Your task to perform on an android device: toggle priority inbox in the gmail app Image 0: 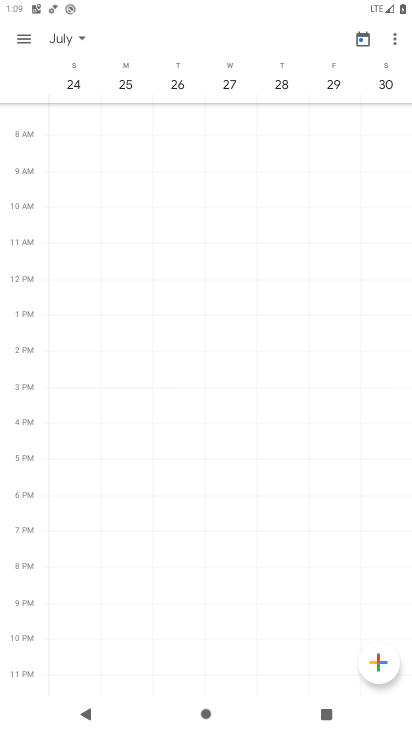
Step 0: press home button
Your task to perform on an android device: toggle priority inbox in the gmail app Image 1: 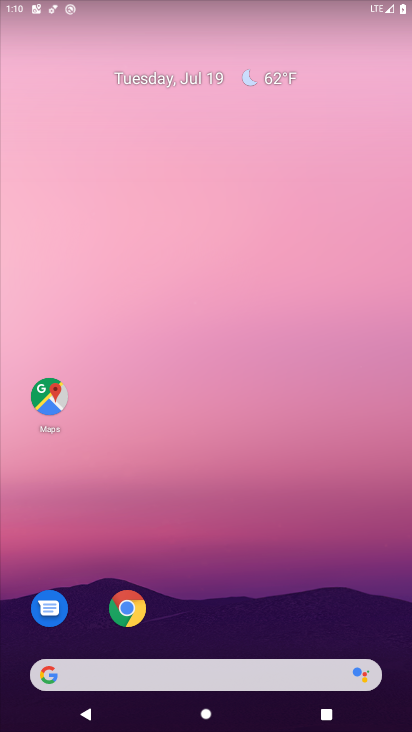
Step 1: drag from (218, 622) to (268, 21)
Your task to perform on an android device: toggle priority inbox in the gmail app Image 2: 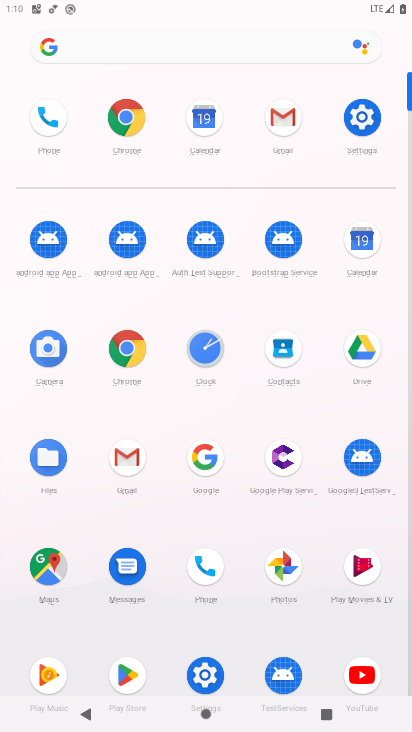
Step 2: click (122, 447)
Your task to perform on an android device: toggle priority inbox in the gmail app Image 3: 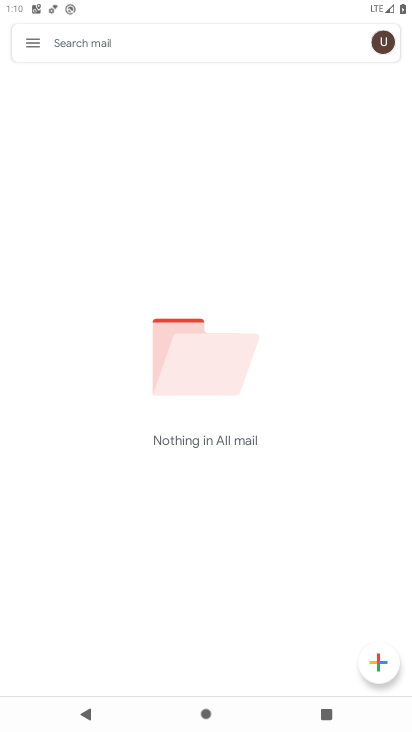
Step 3: click (26, 39)
Your task to perform on an android device: toggle priority inbox in the gmail app Image 4: 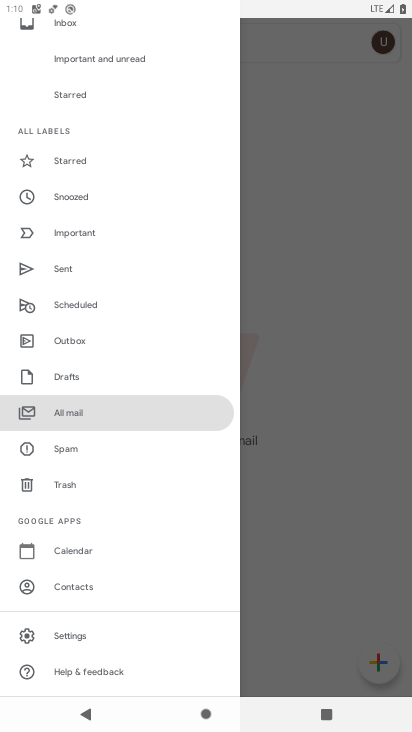
Step 4: click (102, 635)
Your task to perform on an android device: toggle priority inbox in the gmail app Image 5: 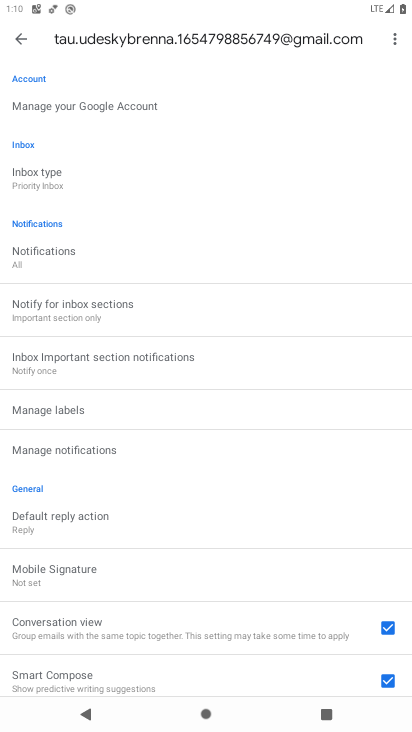
Step 5: click (72, 169)
Your task to perform on an android device: toggle priority inbox in the gmail app Image 6: 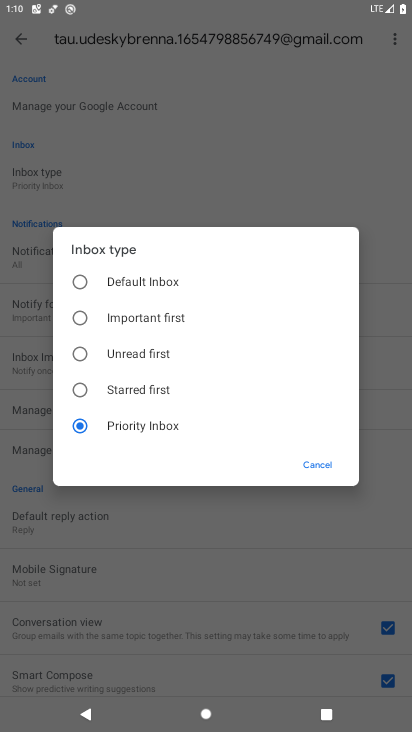
Step 6: task complete